Your task to perform on an android device: show emergency info Image 0: 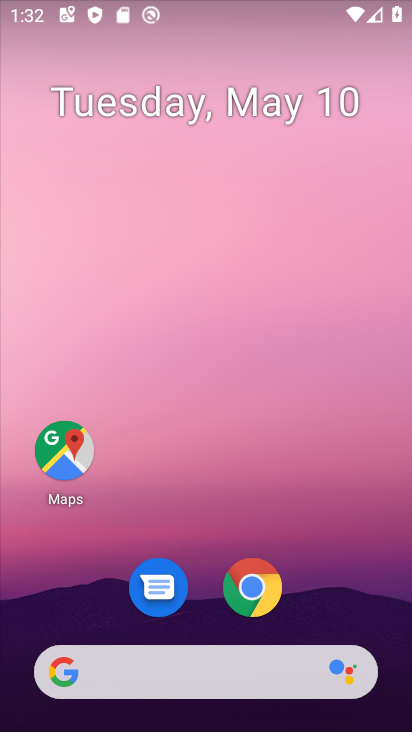
Step 0: drag from (67, 642) to (210, 97)
Your task to perform on an android device: show emergency info Image 1: 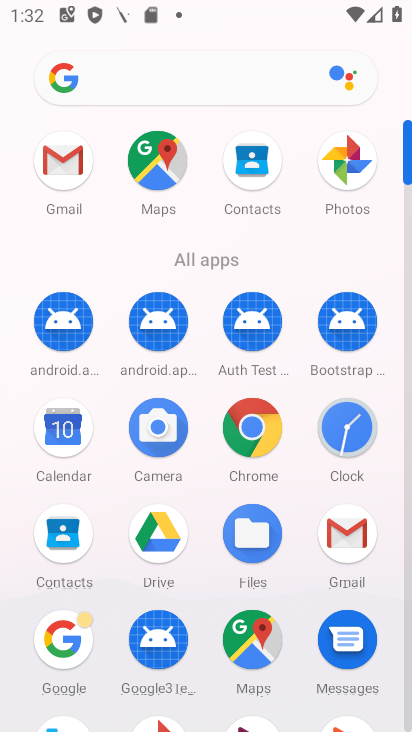
Step 1: drag from (152, 644) to (226, 295)
Your task to perform on an android device: show emergency info Image 2: 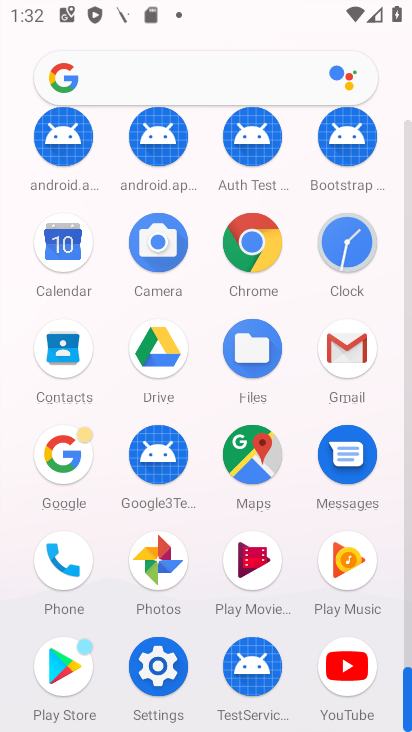
Step 2: click (174, 681)
Your task to perform on an android device: show emergency info Image 3: 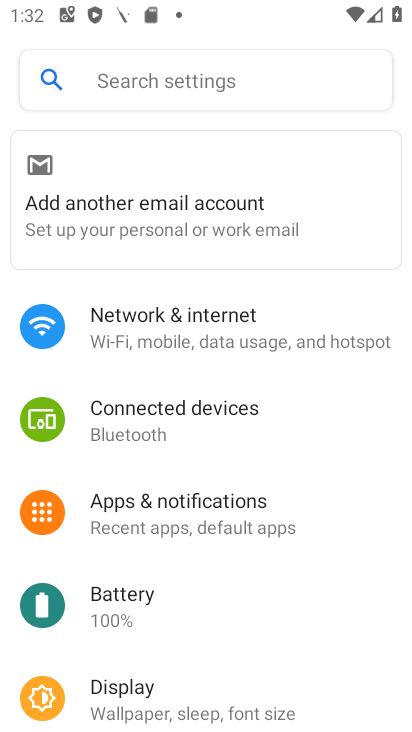
Step 3: drag from (230, 644) to (362, 118)
Your task to perform on an android device: show emergency info Image 4: 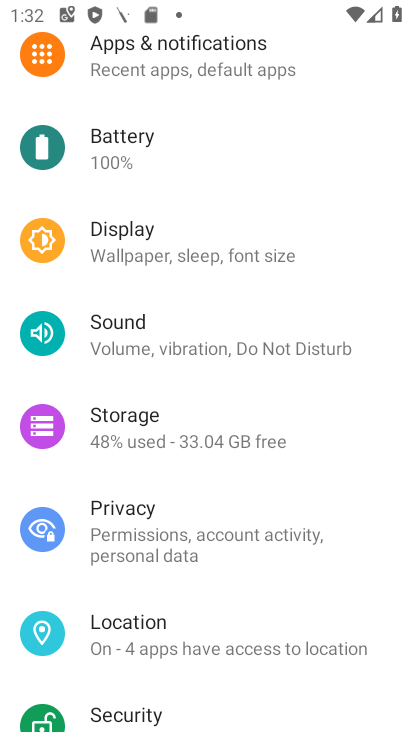
Step 4: drag from (208, 695) to (299, 159)
Your task to perform on an android device: show emergency info Image 5: 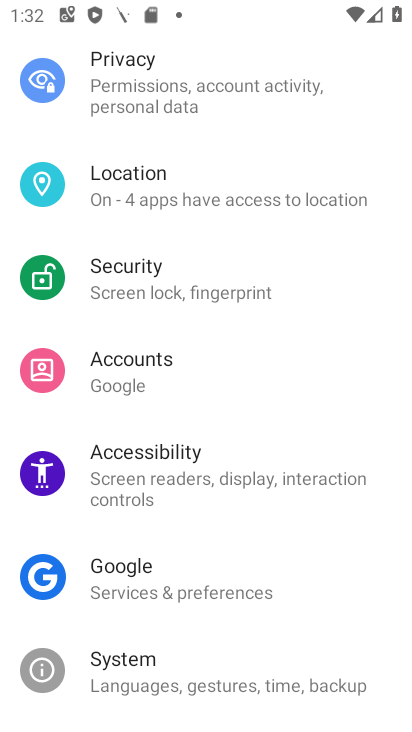
Step 5: drag from (223, 618) to (283, 330)
Your task to perform on an android device: show emergency info Image 6: 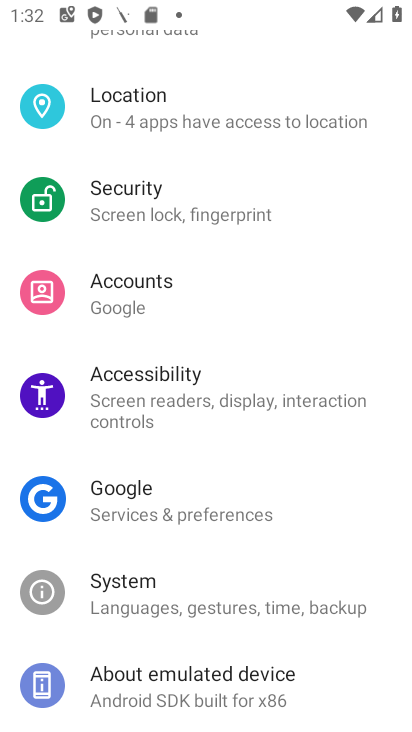
Step 6: click (220, 701)
Your task to perform on an android device: show emergency info Image 7: 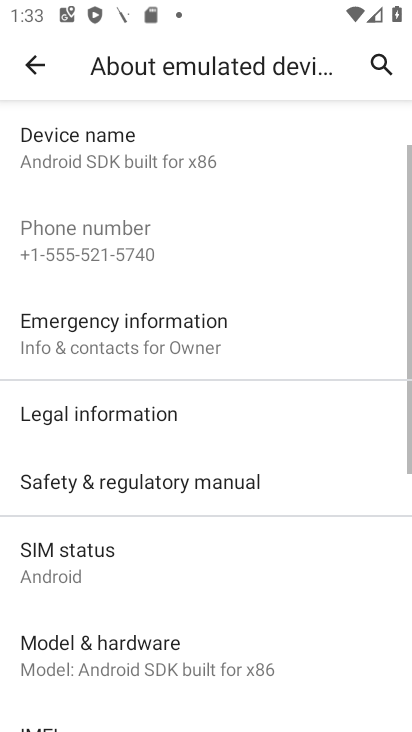
Step 7: click (228, 349)
Your task to perform on an android device: show emergency info Image 8: 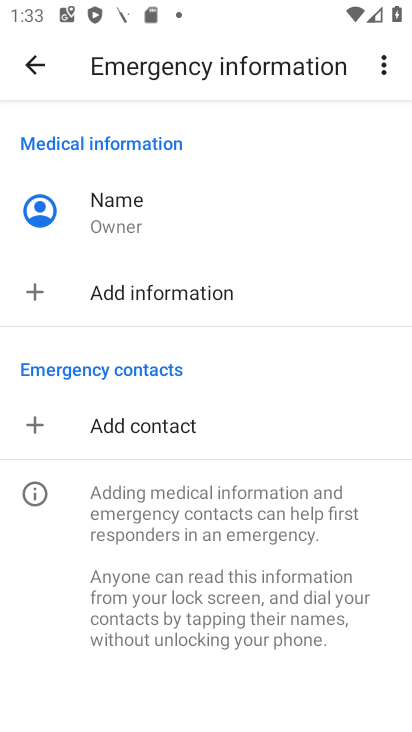
Step 8: task complete